Your task to perform on an android device: Search for sushi restaurants on Maps Image 0: 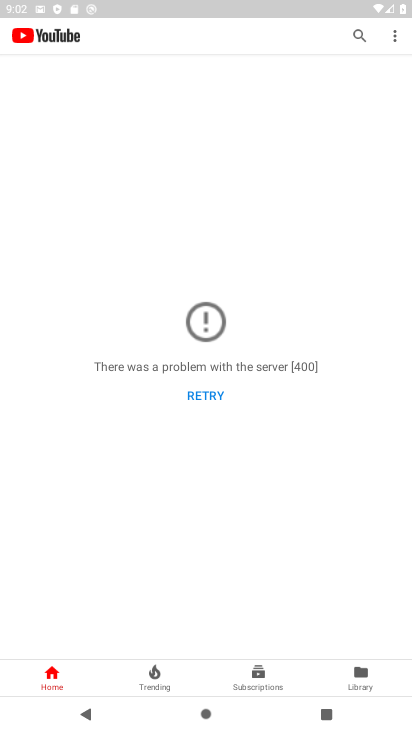
Step 0: press home button
Your task to perform on an android device: Search for sushi restaurants on Maps Image 1: 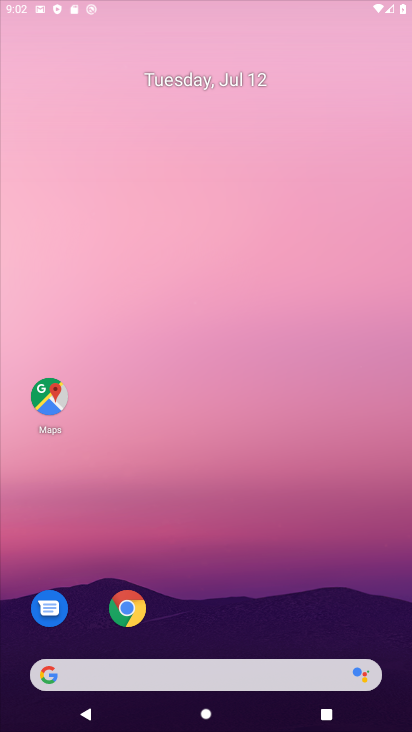
Step 1: drag from (288, 635) to (221, 4)
Your task to perform on an android device: Search for sushi restaurants on Maps Image 2: 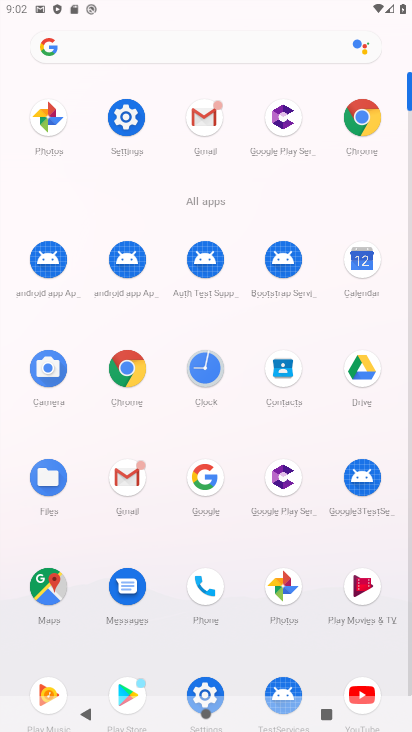
Step 2: click (136, 378)
Your task to perform on an android device: Search for sushi restaurants on Maps Image 3: 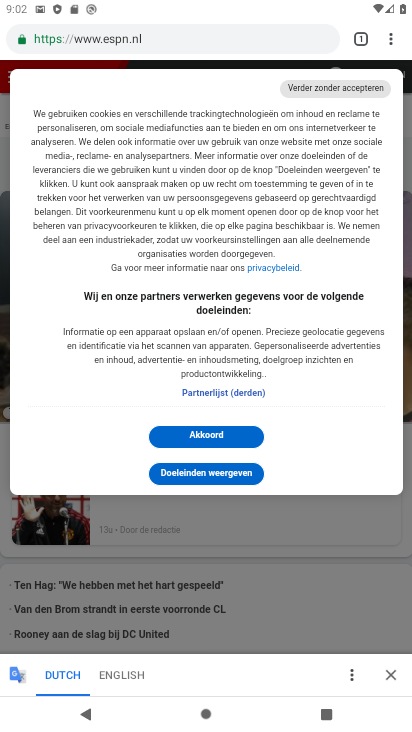
Step 3: press home button
Your task to perform on an android device: Search for sushi restaurants on Maps Image 4: 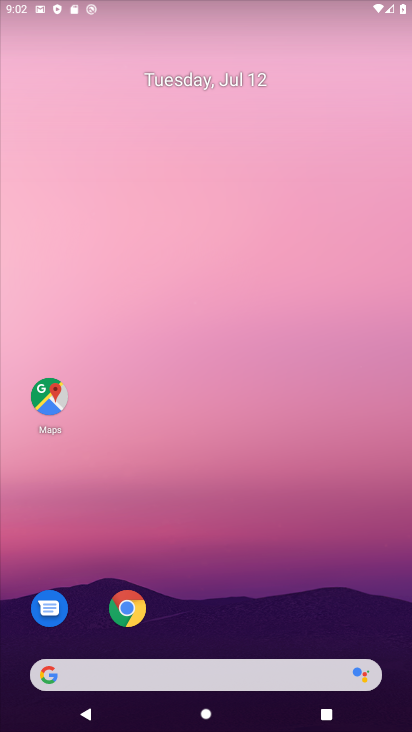
Step 4: drag from (307, 661) to (353, 4)
Your task to perform on an android device: Search for sushi restaurants on Maps Image 5: 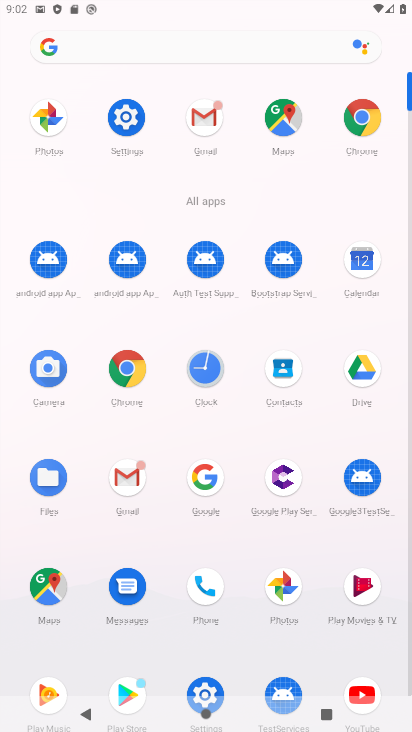
Step 5: click (63, 584)
Your task to perform on an android device: Search for sushi restaurants on Maps Image 6: 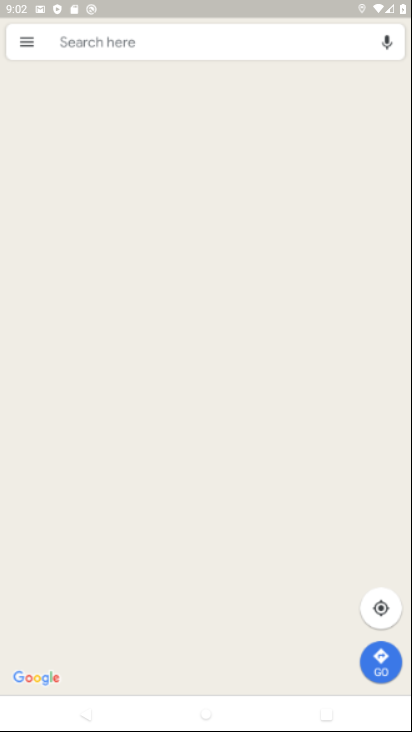
Step 6: click (163, 39)
Your task to perform on an android device: Search for sushi restaurants on Maps Image 7: 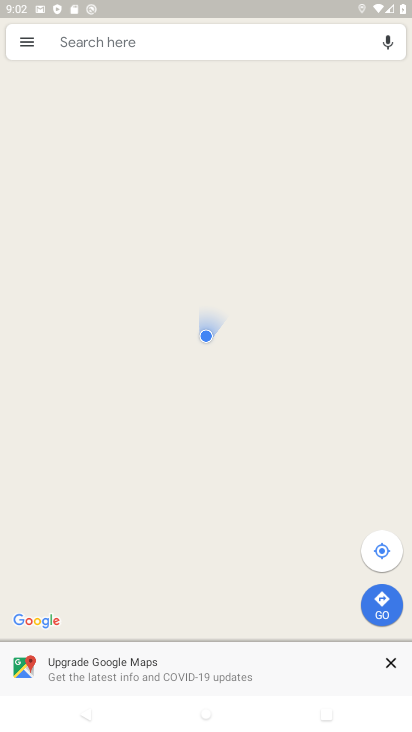
Step 7: click (199, 49)
Your task to perform on an android device: Search for sushi restaurants on Maps Image 8: 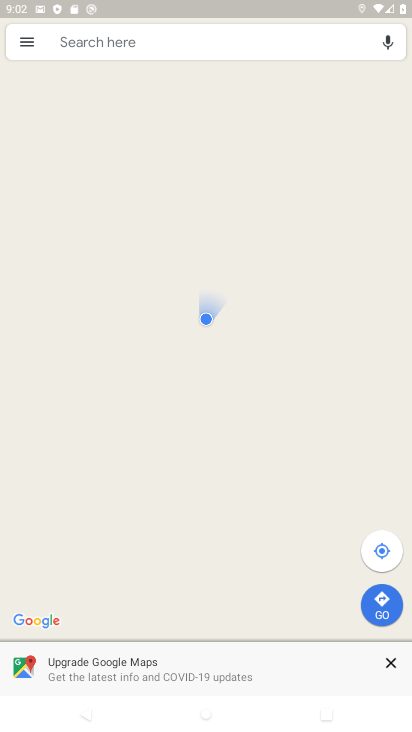
Step 8: click (201, 51)
Your task to perform on an android device: Search for sushi restaurants on Maps Image 9: 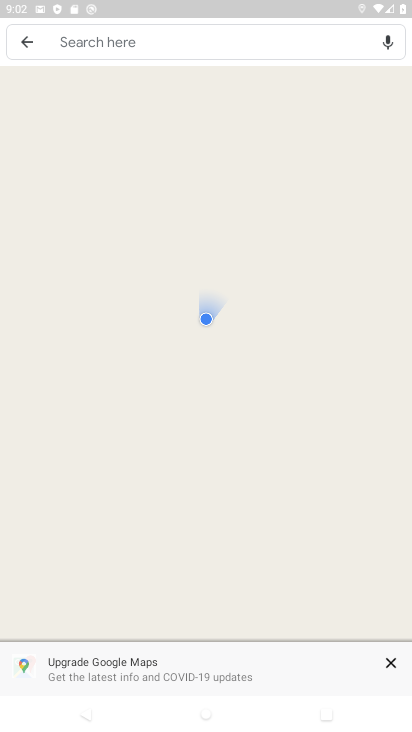
Step 9: click (142, 40)
Your task to perform on an android device: Search for sushi restaurants on Maps Image 10: 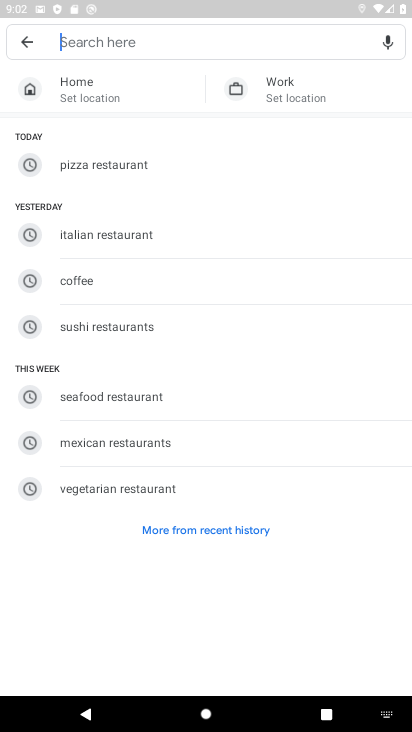
Step 10: click (128, 325)
Your task to perform on an android device: Search for sushi restaurants on Maps Image 11: 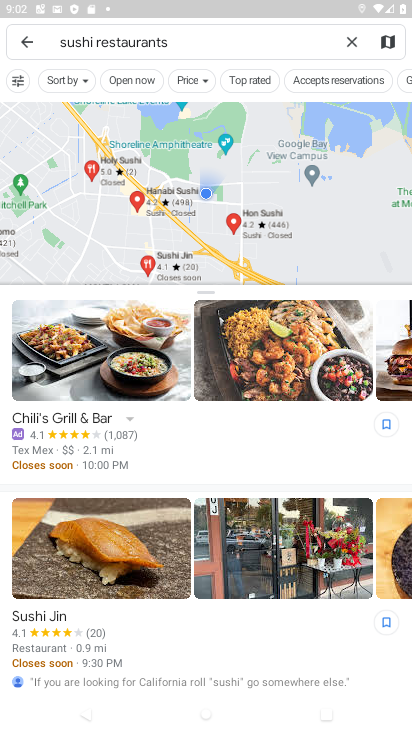
Step 11: task complete